Your task to perform on an android device: show emergency info Image 0: 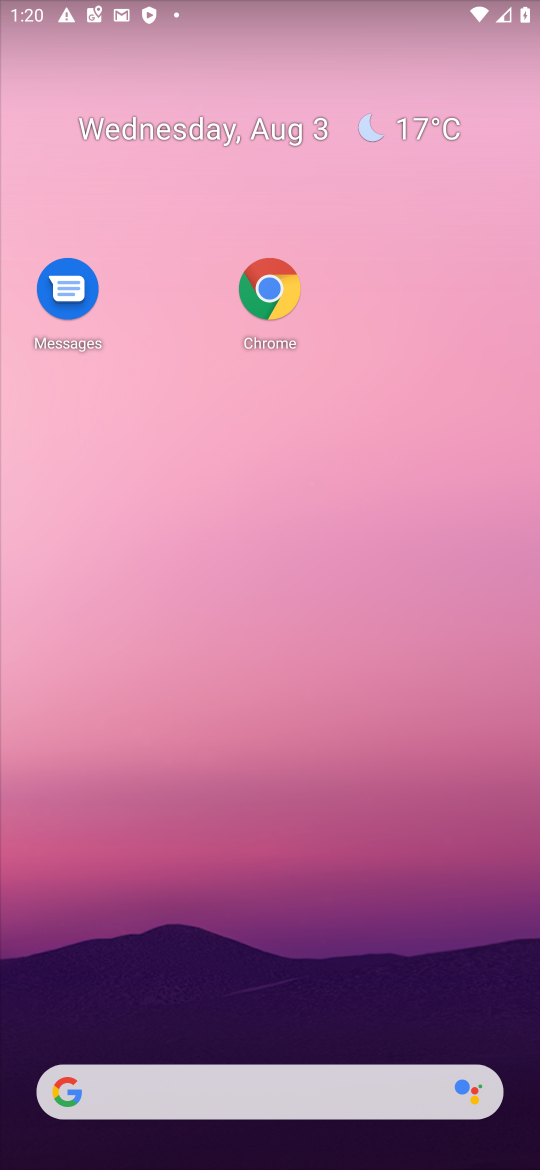
Step 0: drag from (448, 1060) to (408, 574)
Your task to perform on an android device: show emergency info Image 1: 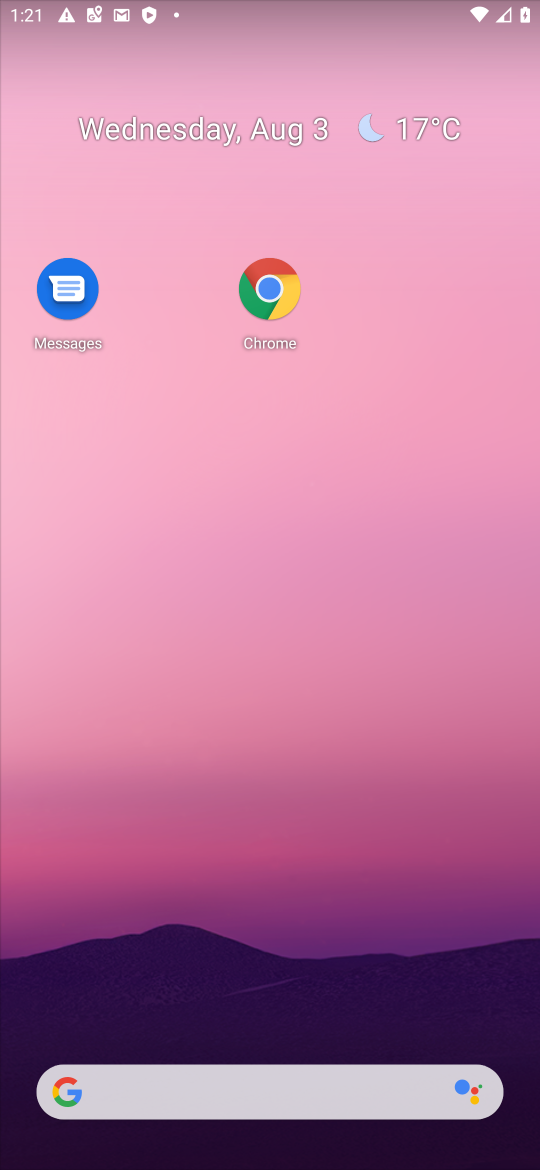
Step 1: drag from (242, 931) to (195, 390)
Your task to perform on an android device: show emergency info Image 2: 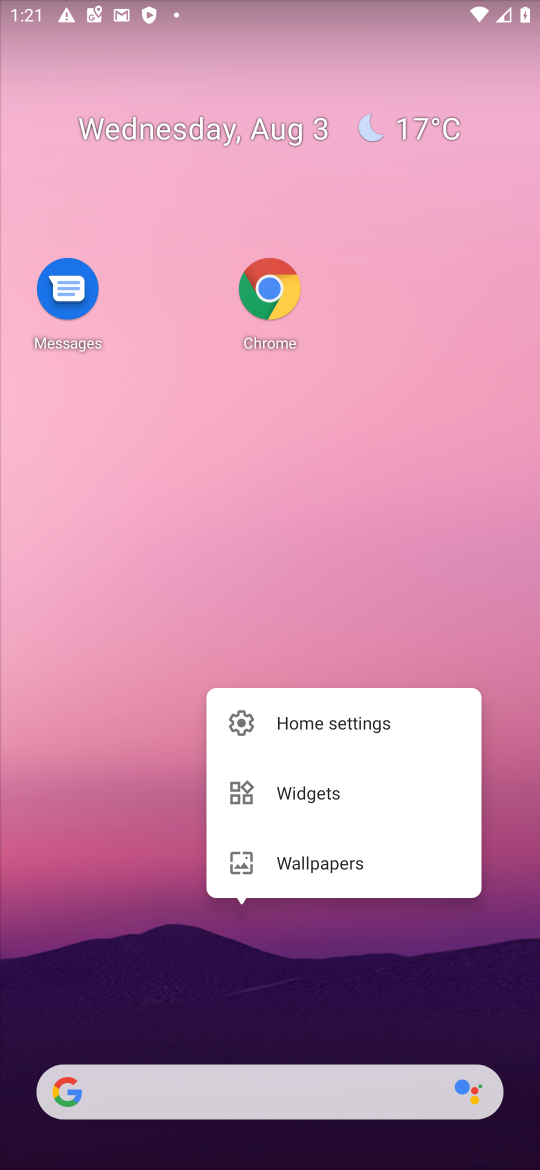
Step 2: click (203, 411)
Your task to perform on an android device: show emergency info Image 3: 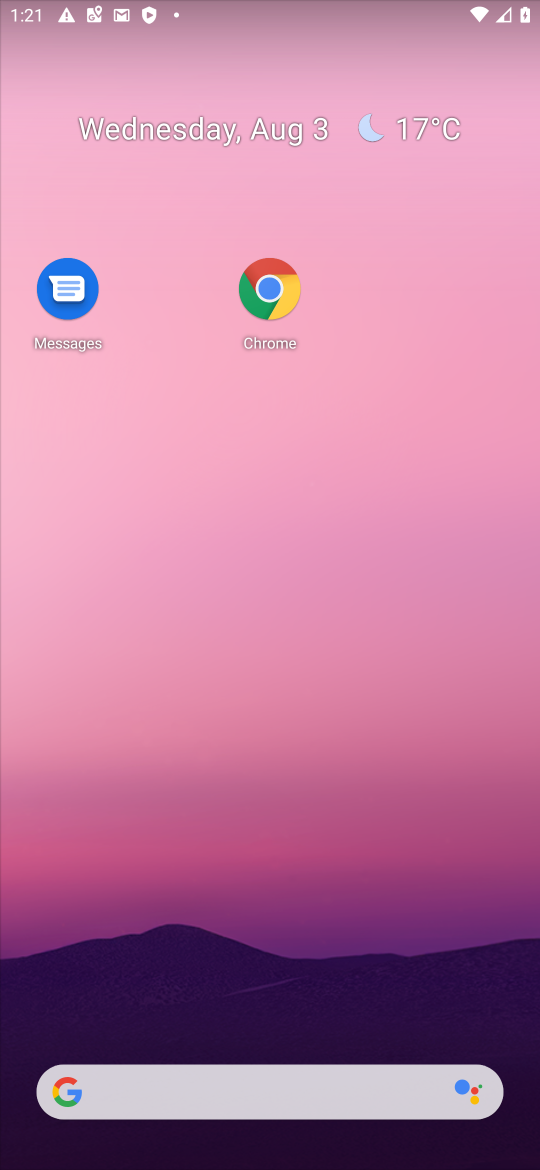
Step 3: drag from (239, 982) to (134, 351)
Your task to perform on an android device: show emergency info Image 4: 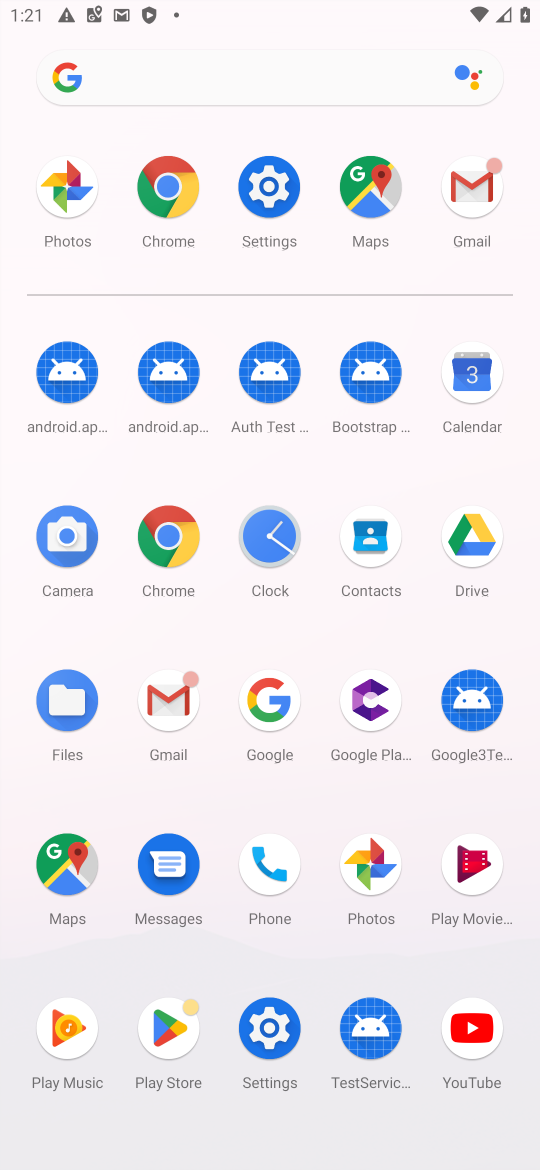
Step 4: drag from (199, 584) to (155, 636)
Your task to perform on an android device: show emergency info Image 5: 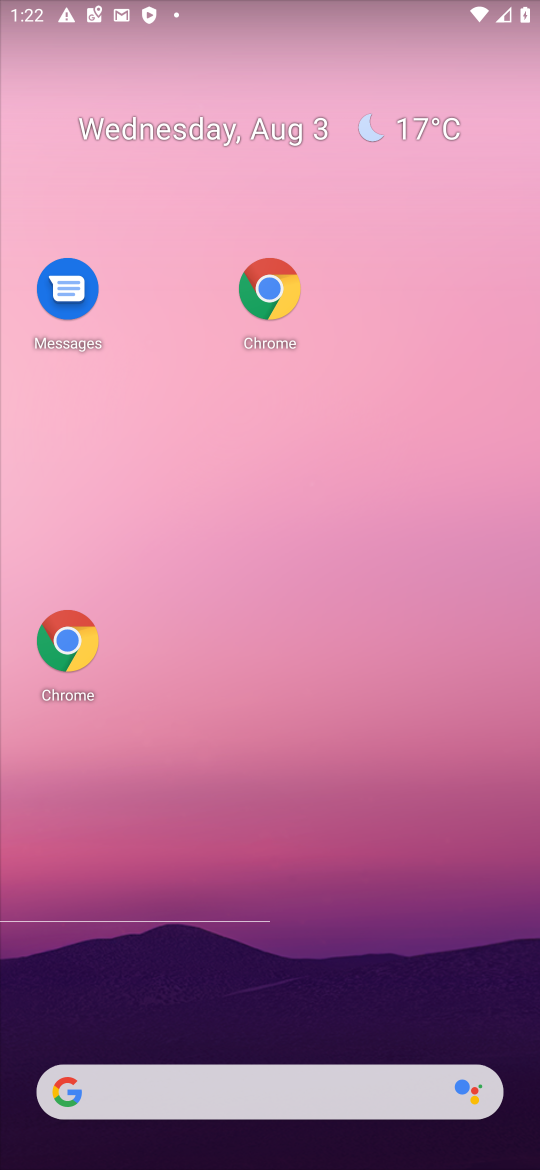
Step 5: click (260, 1032)
Your task to perform on an android device: show emergency info Image 6: 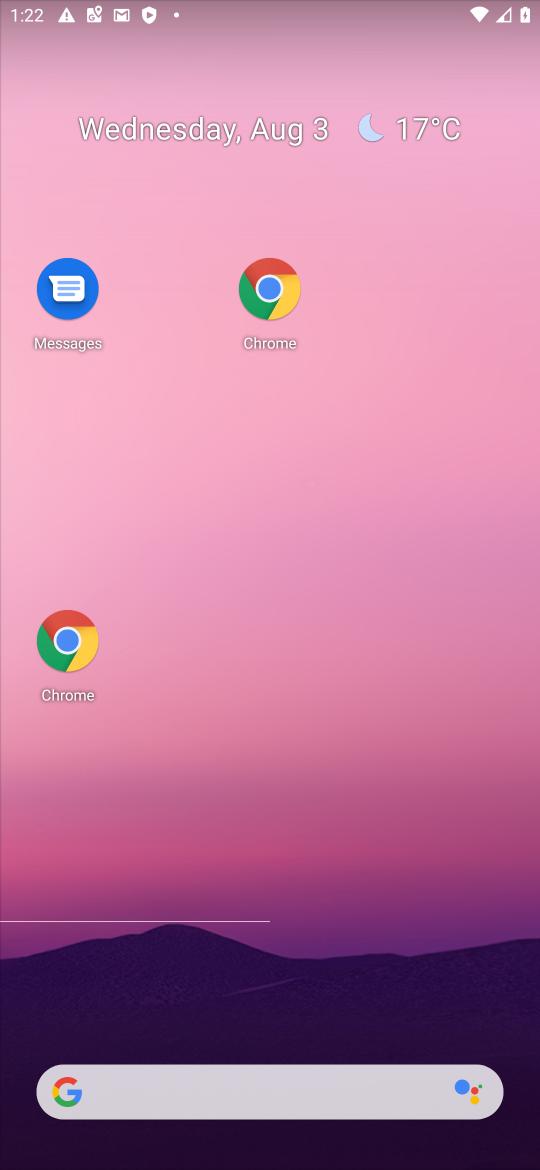
Step 6: task complete